Your task to perform on an android device: change alarm snooze length Image 0: 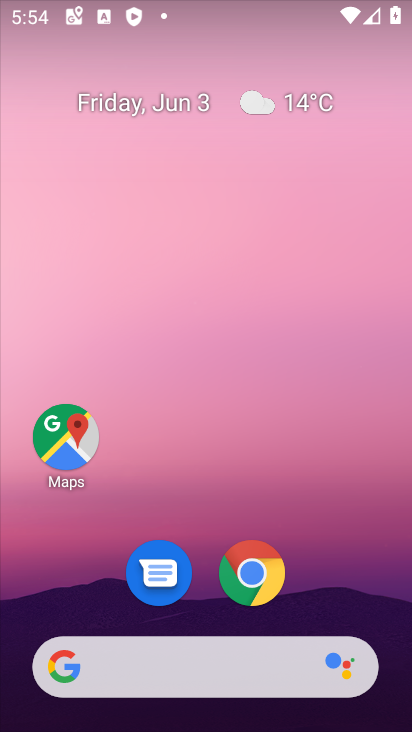
Step 0: drag from (314, 680) to (346, 0)
Your task to perform on an android device: change alarm snooze length Image 1: 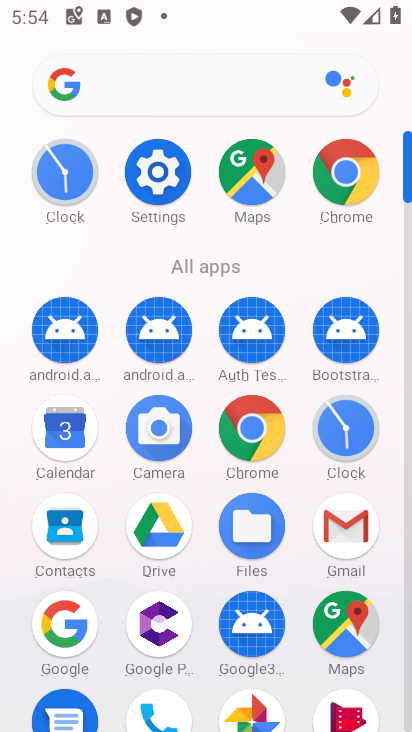
Step 1: click (369, 431)
Your task to perform on an android device: change alarm snooze length Image 2: 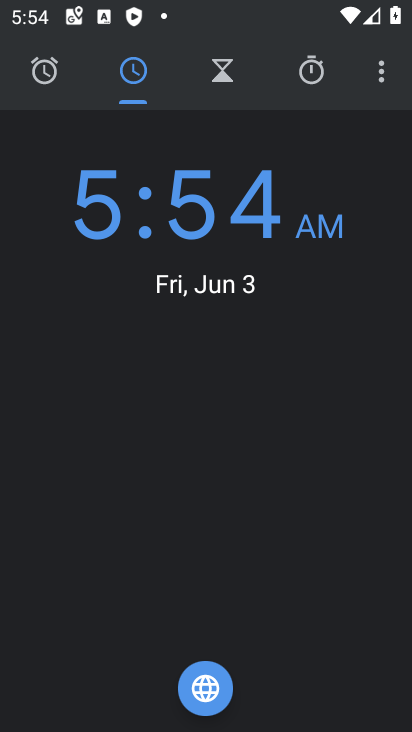
Step 2: click (368, 66)
Your task to perform on an android device: change alarm snooze length Image 3: 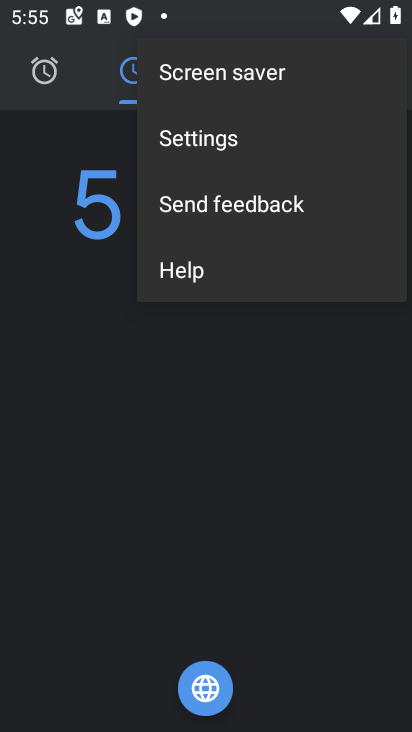
Step 3: click (258, 151)
Your task to perform on an android device: change alarm snooze length Image 4: 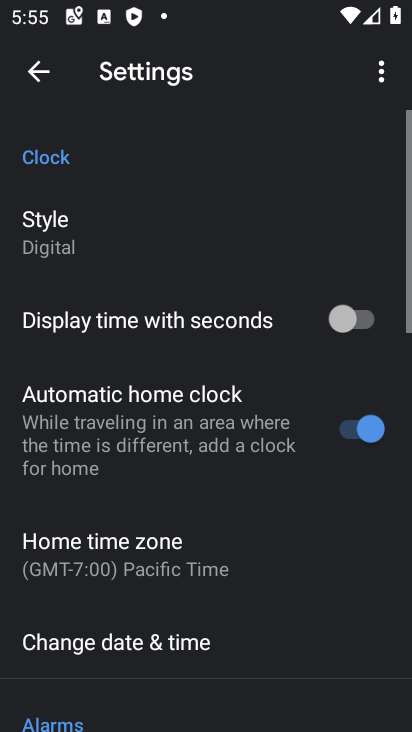
Step 4: drag from (288, 555) to (301, 158)
Your task to perform on an android device: change alarm snooze length Image 5: 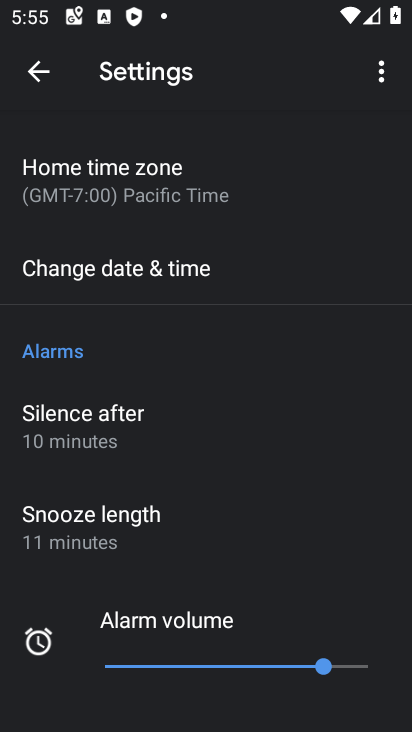
Step 5: click (189, 525)
Your task to perform on an android device: change alarm snooze length Image 6: 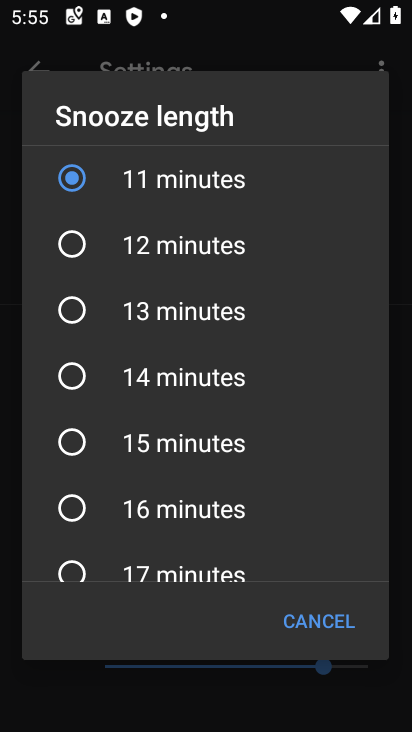
Step 6: click (91, 313)
Your task to perform on an android device: change alarm snooze length Image 7: 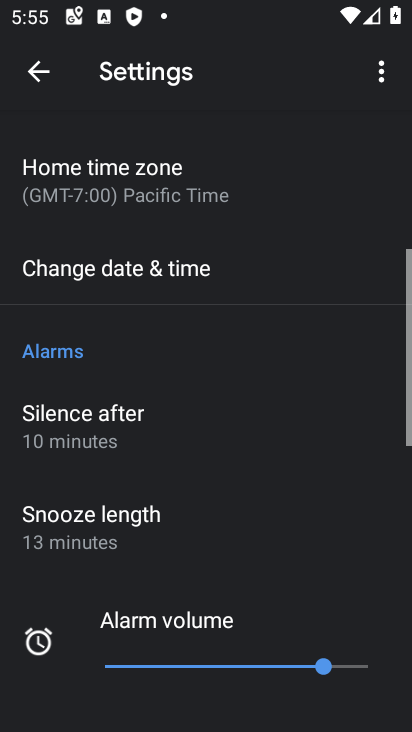
Step 7: task complete